Your task to perform on an android device: turn on sleep mode Image 0: 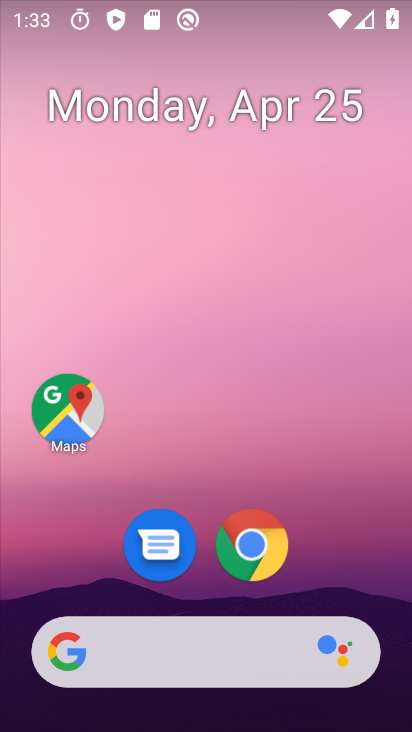
Step 0: drag from (334, 549) to (292, 146)
Your task to perform on an android device: turn on sleep mode Image 1: 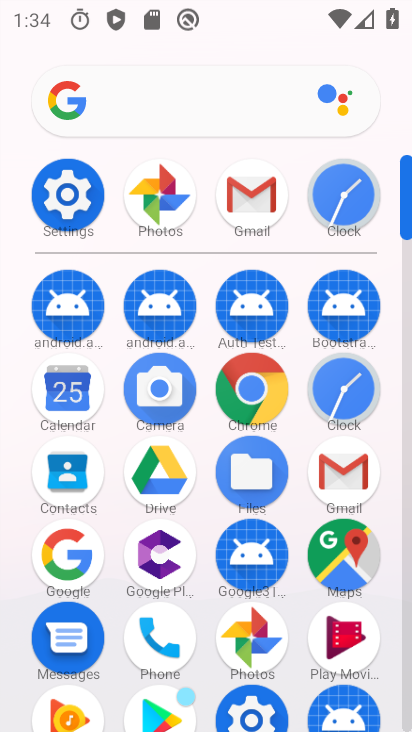
Step 1: click (67, 205)
Your task to perform on an android device: turn on sleep mode Image 2: 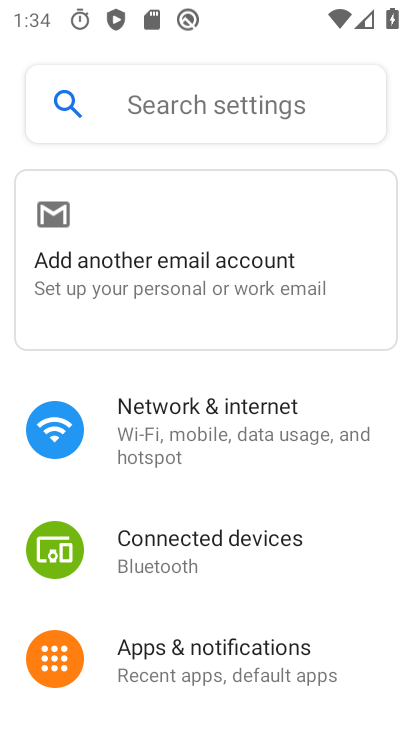
Step 2: drag from (339, 633) to (321, 343)
Your task to perform on an android device: turn on sleep mode Image 3: 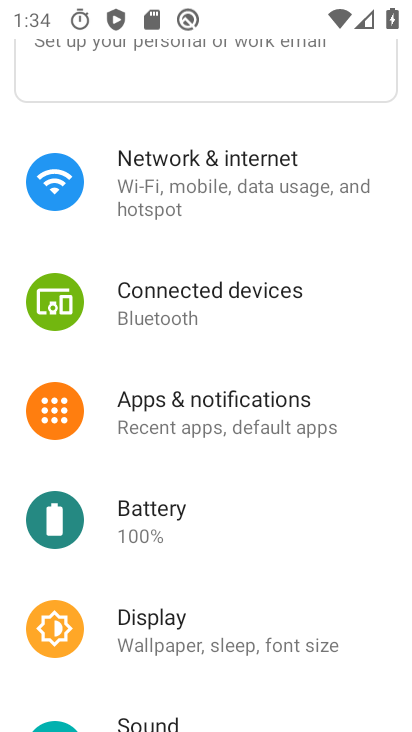
Step 3: click (237, 648)
Your task to perform on an android device: turn on sleep mode Image 4: 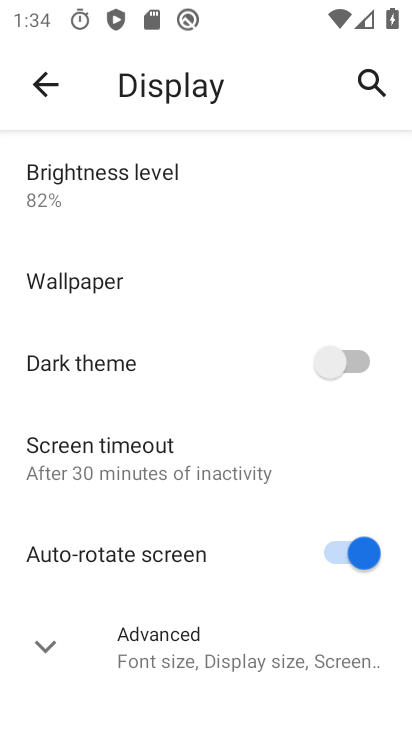
Step 4: click (197, 636)
Your task to perform on an android device: turn on sleep mode Image 5: 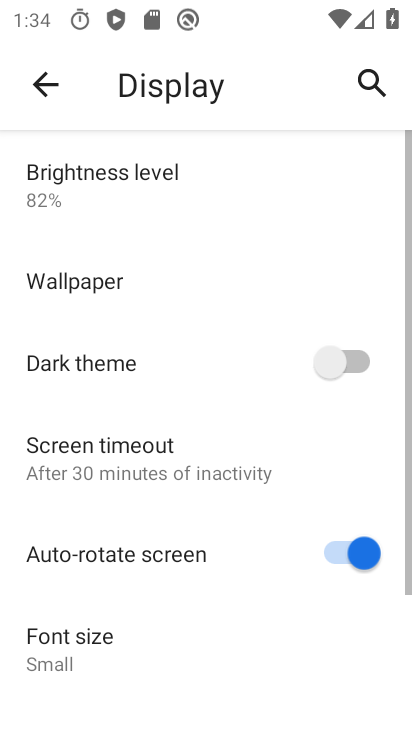
Step 5: task complete